Your task to perform on an android device: Check the news Image 0: 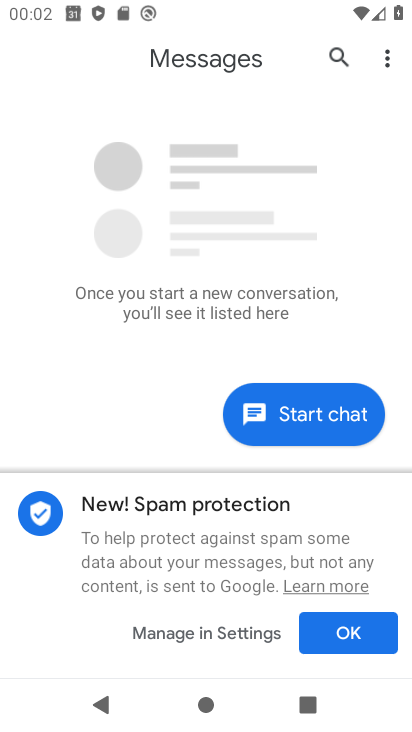
Step 0: press home button
Your task to perform on an android device: Check the news Image 1: 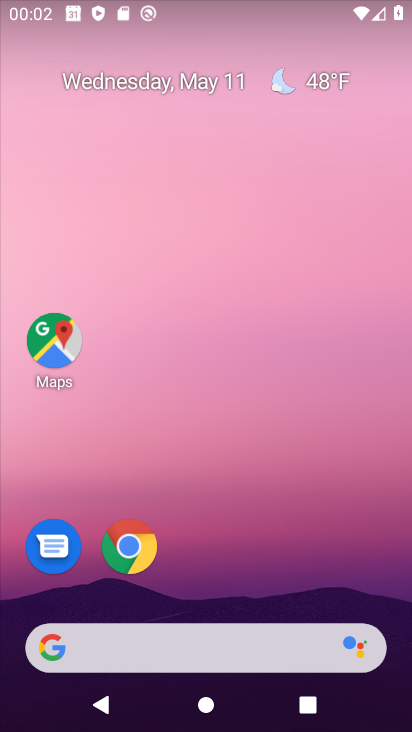
Step 1: drag from (218, 583) to (207, 192)
Your task to perform on an android device: Check the news Image 2: 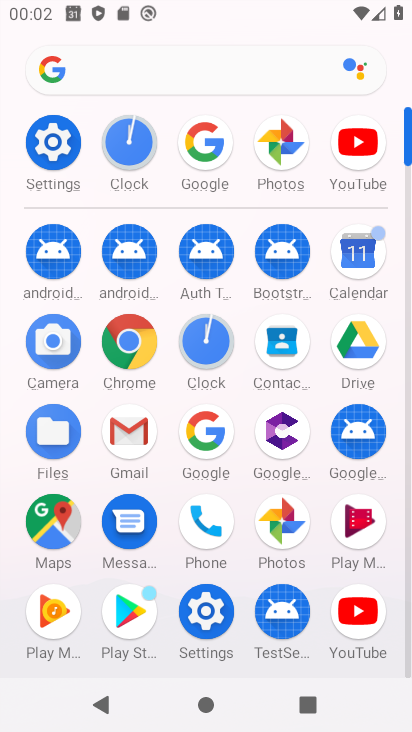
Step 2: click (186, 436)
Your task to perform on an android device: Check the news Image 3: 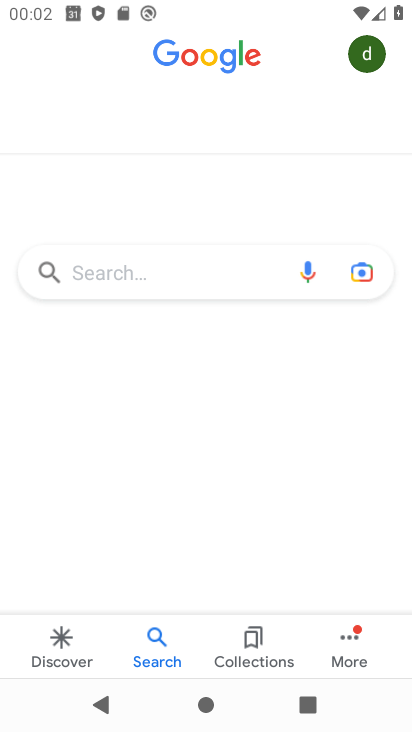
Step 3: click (168, 273)
Your task to perform on an android device: Check the news Image 4: 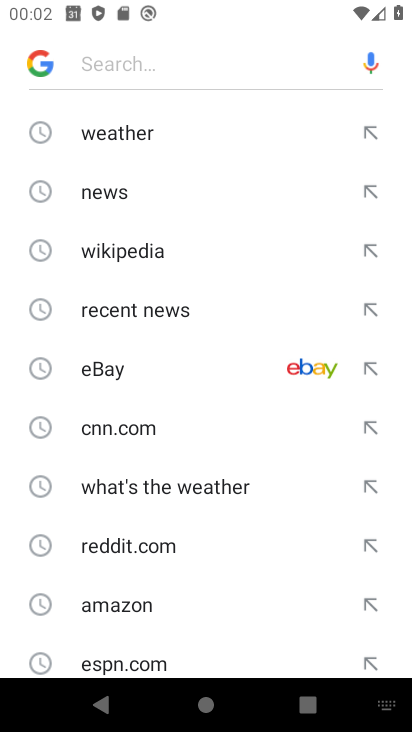
Step 4: click (137, 197)
Your task to perform on an android device: Check the news Image 5: 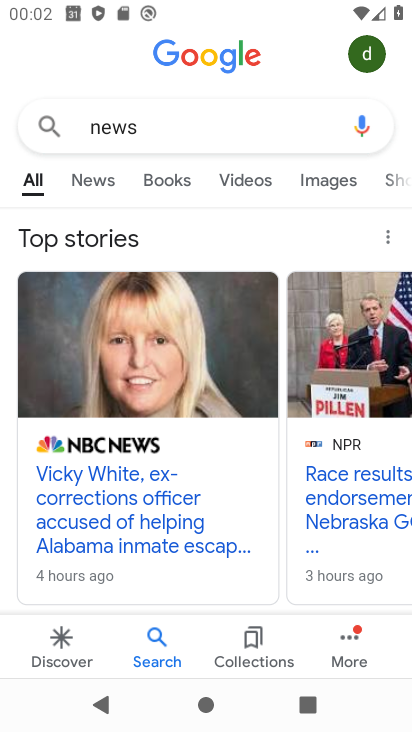
Step 5: click (101, 183)
Your task to perform on an android device: Check the news Image 6: 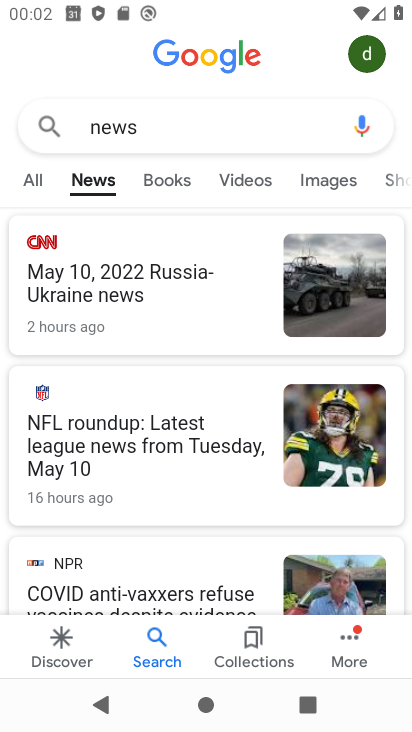
Step 6: task complete